Your task to perform on an android device: change the clock style Image 0: 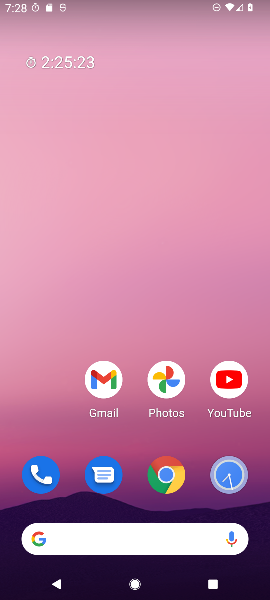
Step 0: press home button
Your task to perform on an android device: change the clock style Image 1: 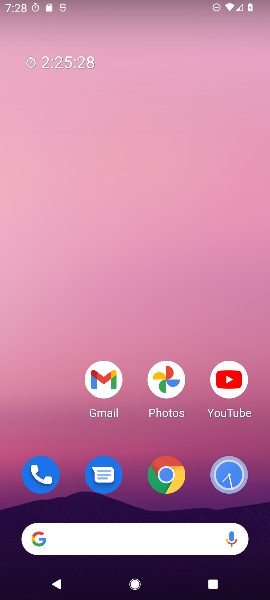
Step 1: drag from (56, 431) to (65, 247)
Your task to perform on an android device: change the clock style Image 2: 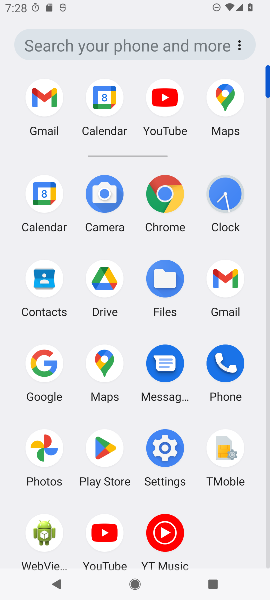
Step 2: click (231, 196)
Your task to perform on an android device: change the clock style Image 3: 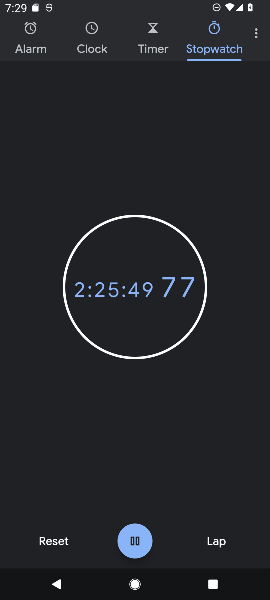
Step 3: click (256, 38)
Your task to perform on an android device: change the clock style Image 4: 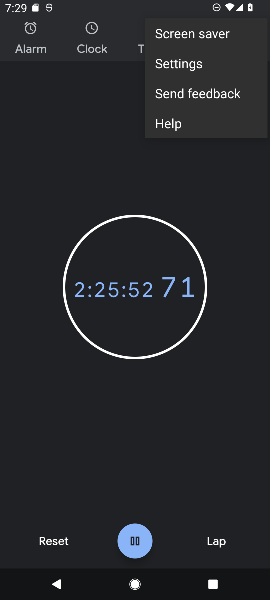
Step 4: click (195, 63)
Your task to perform on an android device: change the clock style Image 5: 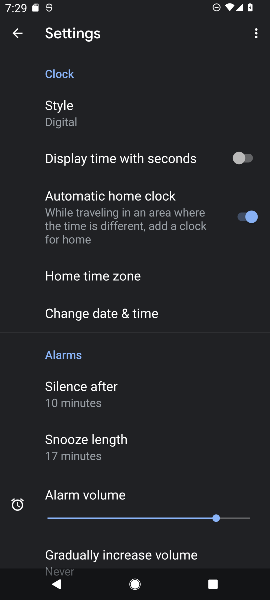
Step 5: drag from (198, 316) to (205, 252)
Your task to perform on an android device: change the clock style Image 6: 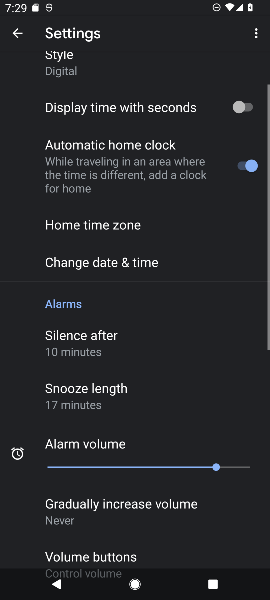
Step 6: drag from (200, 321) to (204, 218)
Your task to perform on an android device: change the clock style Image 7: 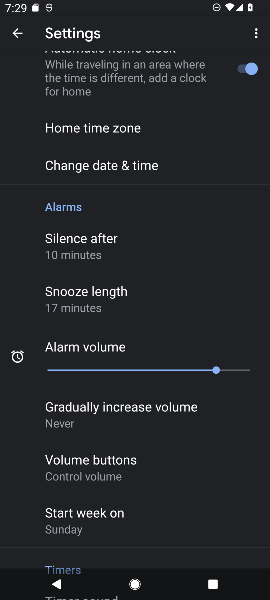
Step 7: drag from (207, 298) to (208, 207)
Your task to perform on an android device: change the clock style Image 8: 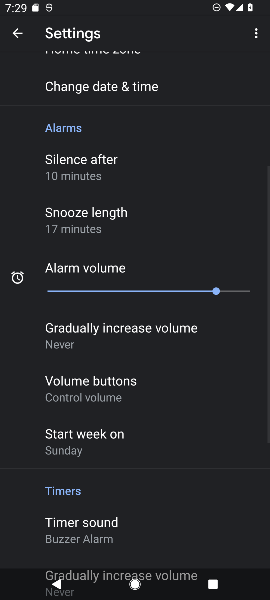
Step 8: drag from (196, 336) to (202, 220)
Your task to perform on an android device: change the clock style Image 9: 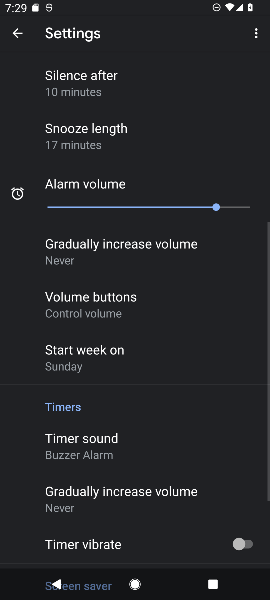
Step 9: drag from (203, 276) to (205, 222)
Your task to perform on an android device: change the clock style Image 10: 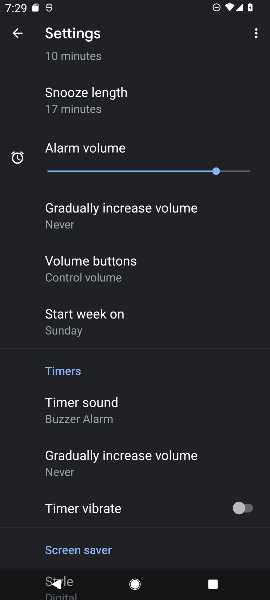
Step 10: drag from (200, 315) to (209, 259)
Your task to perform on an android device: change the clock style Image 11: 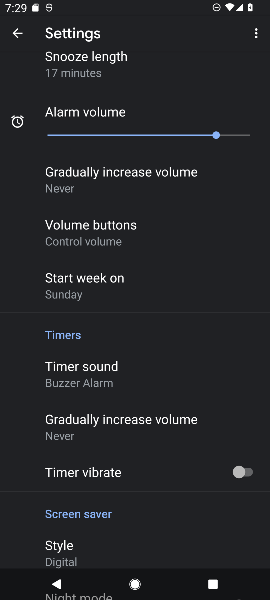
Step 11: drag from (220, 342) to (230, 260)
Your task to perform on an android device: change the clock style Image 12: 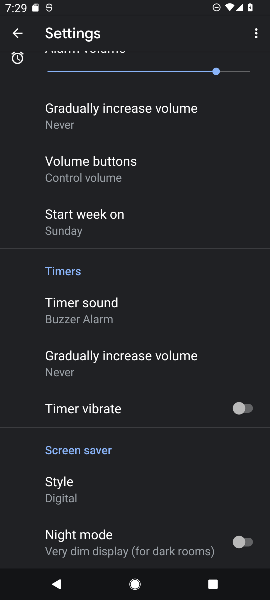
Step 12: drag from (216, 158) to (213, 237)
Your task to perform on an android device: change the clock style Image 13: 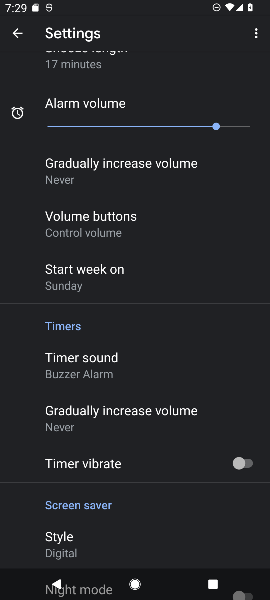
Step 13: drag from (226, 160) to (223, 227)
Your task to perform on an android device: change the clock style Image 14: 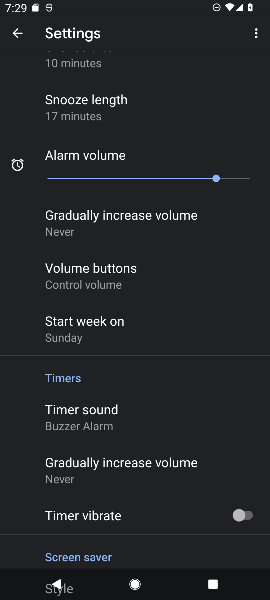
Step 14: drag from (223, 119) to (220, 212)
Your task to perform on an android device: change the clock style Image 15: 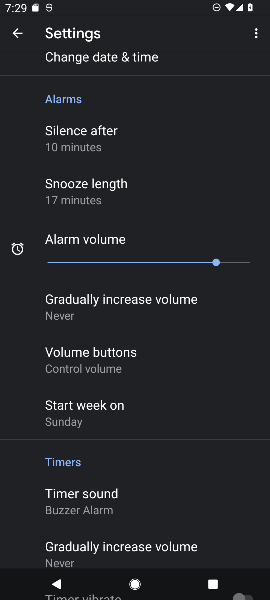
Step 15: drag from (211, 110) to (209, 185)
Your task to perform on an android device: change the clock style Image 16: 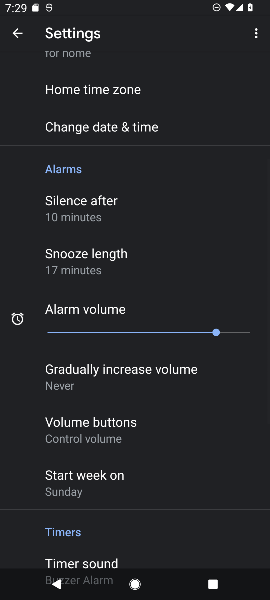
Step 16: drag from (204, 110) to (201, 194)
Your task to perform on an android device: change the clock style Image 17: 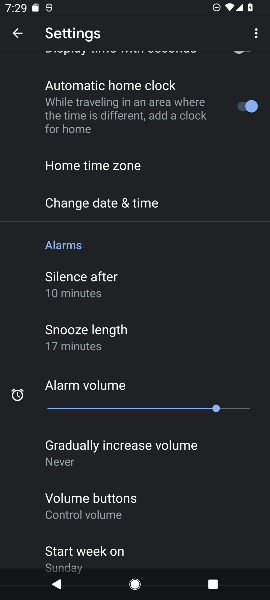
Step 17: drag from (195, 160) to (190, 223)
Your task to perform on an android device: change the clock style Image 18: 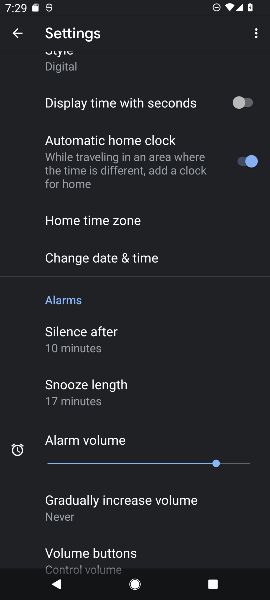
Step 18: drag from (189, 97) to (180, 192)
Your task to perform on an android device: change the clock style Image 19: 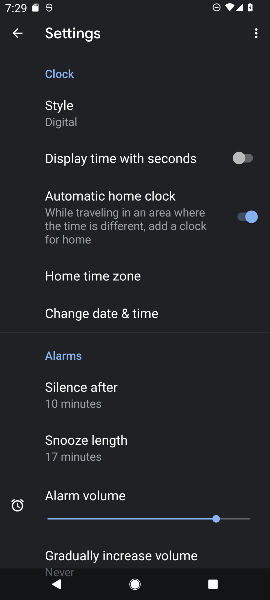
Step 19: click (75, 108)
Your task to perform on an android device: change the clock style Image 20: 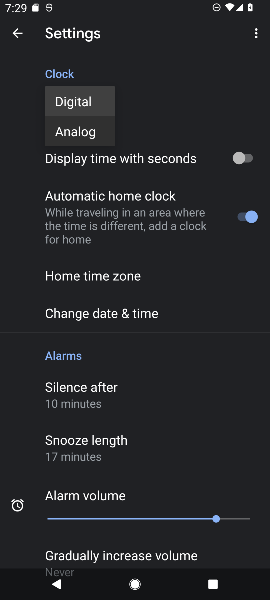
Step 20: click (84, 140)
Your task to perform on an android device: change the clock style Image 21: 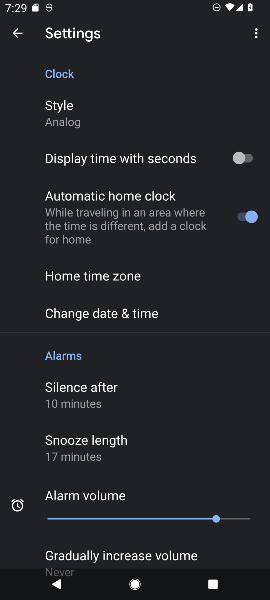
Step 21: task complete